Your task to perform on an android device: toggle location history Image 0: 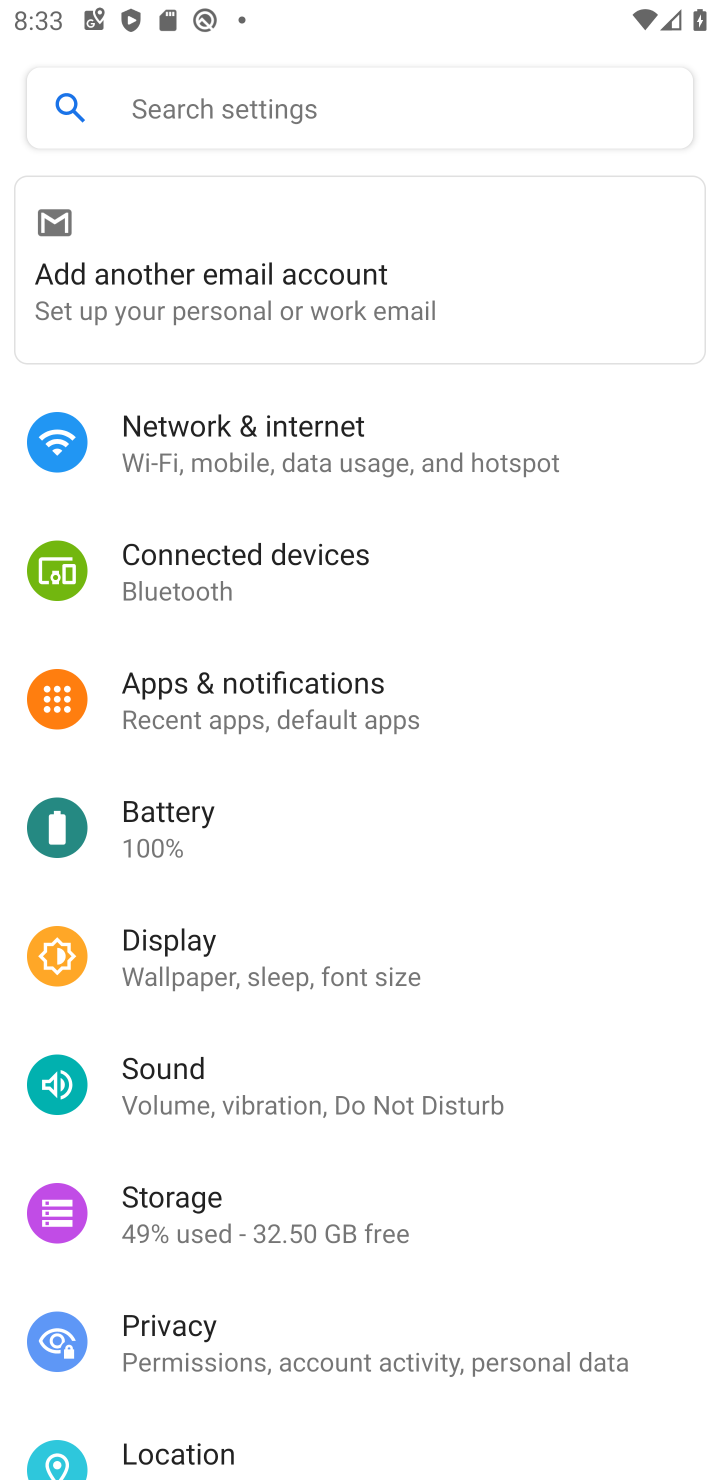
Step 0: click (199, 1442)
Your task to perform on an android device: toggle location history Image 1: 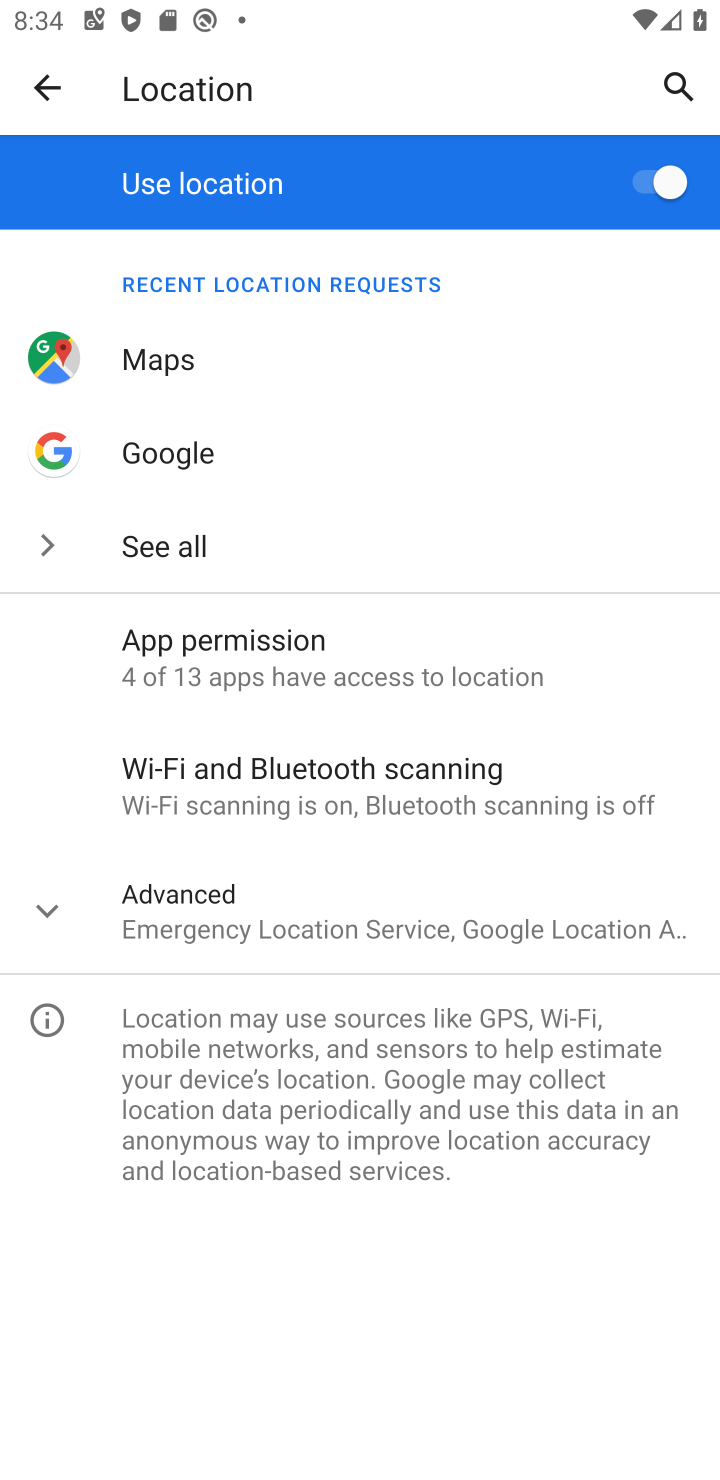
Step 1: click (443, 936)
Your task to perform on an android device: toggle location history Image 2: 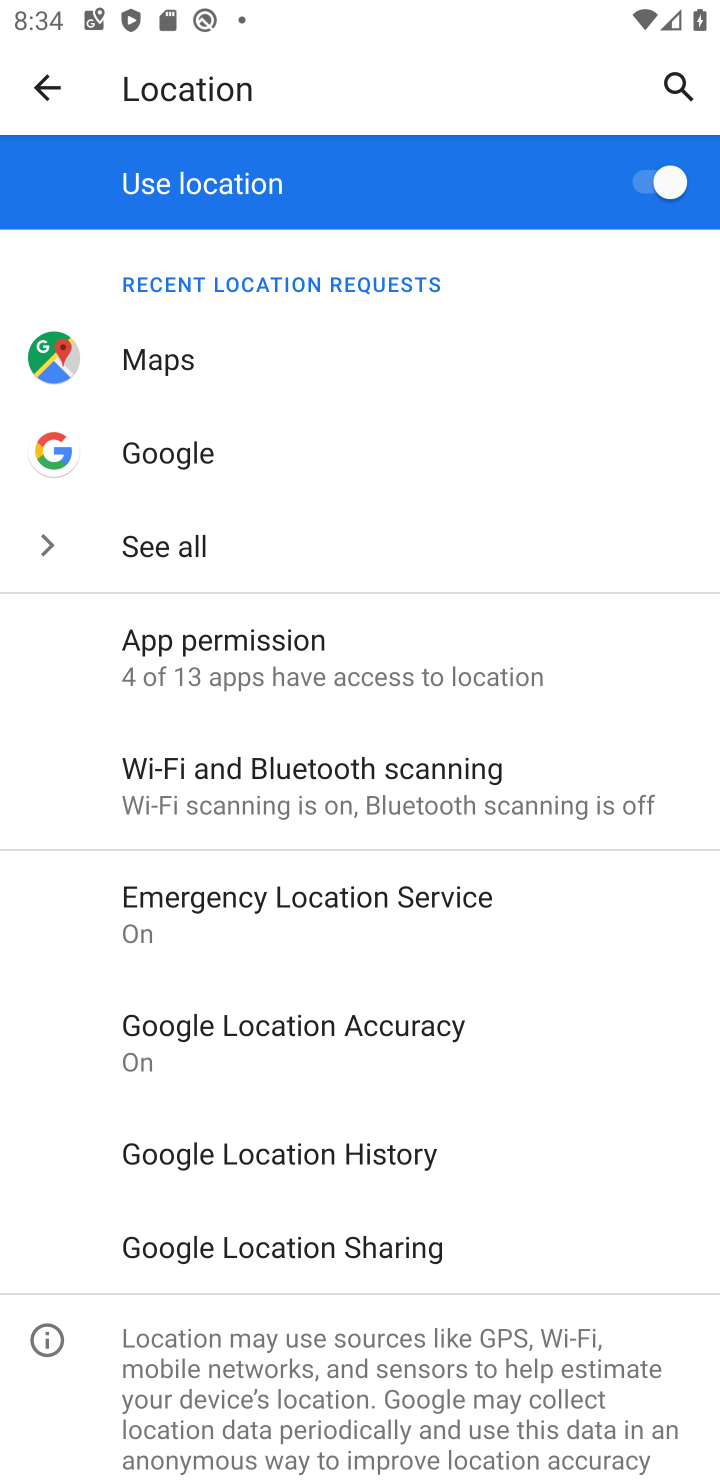
Step 2: click (239, 1155)
Your task to perform on an android device: toggle location history Image 3: 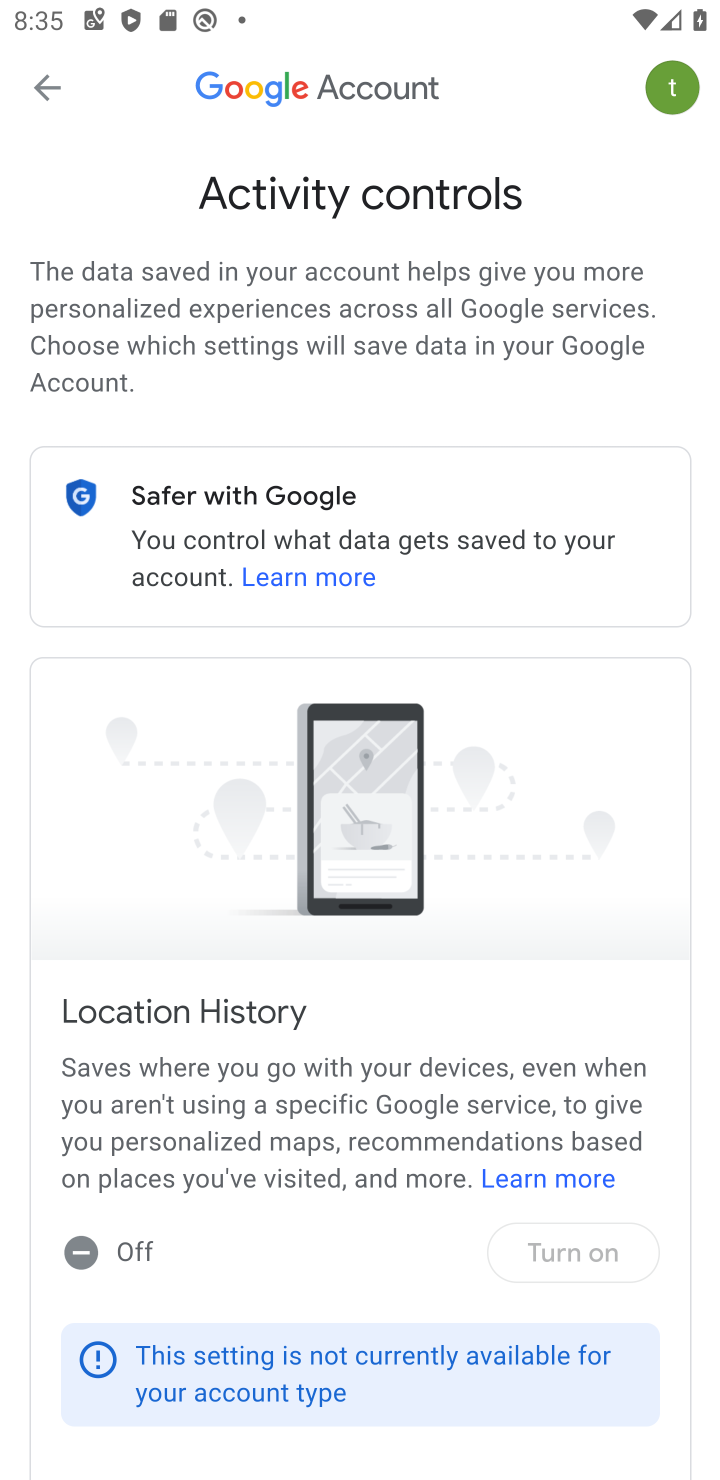
Step 3: task complete